Your task to perform on an android device: delete a single message in the gmail app Image 0: 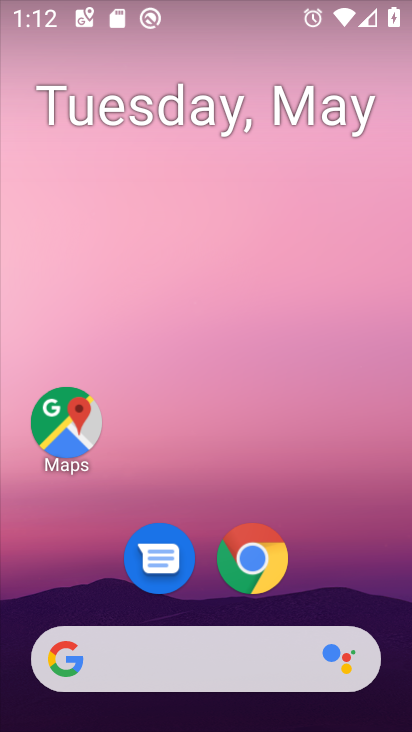
Step 0: drag from (388, 612) to (283, 74)
Your task to perform on an android device: delete a single message in the gmail app Image 1: 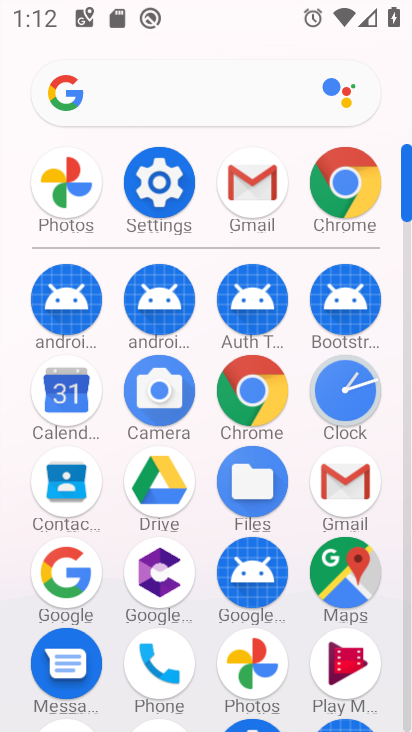
Step 1: click (257, 196)
Your task to perform on an android device: delete a single message in the gmail app Image 2: 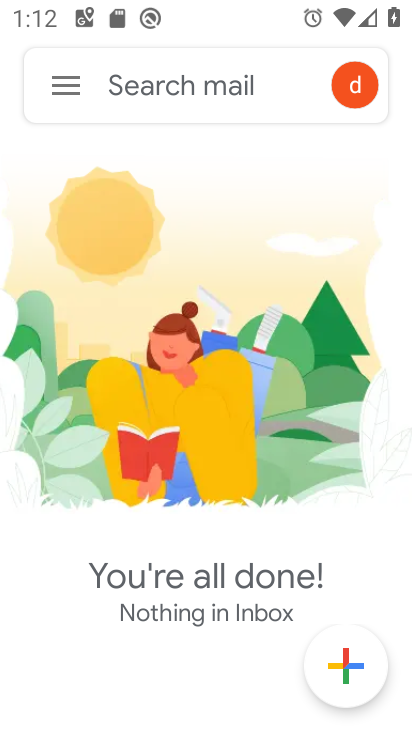
Step 2: task complete